Your task to perform on an android device: See recent photos Image 0: 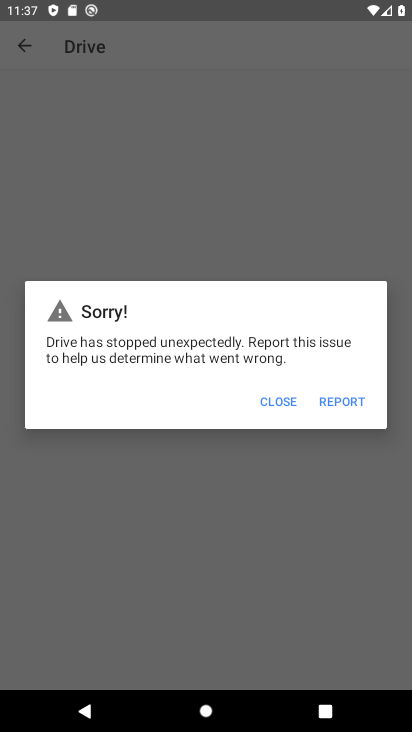
Step 0: press home button
Your task to perform on an android device: See recent photos Image 1: 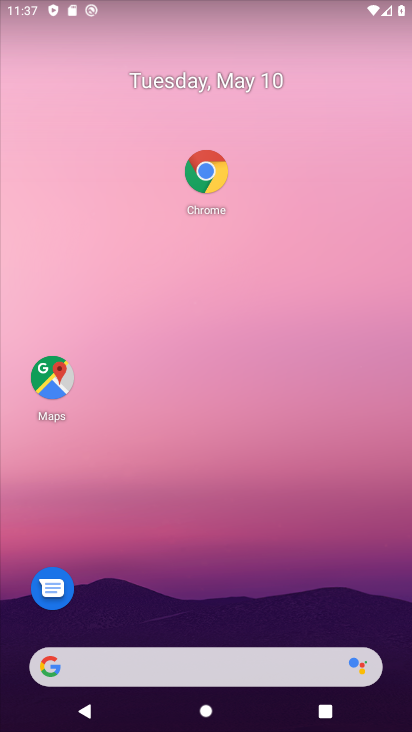
Step 1: drag from (193, 517) to (222, 293)
Your task to perform on an android device: See recent photos Image 2: 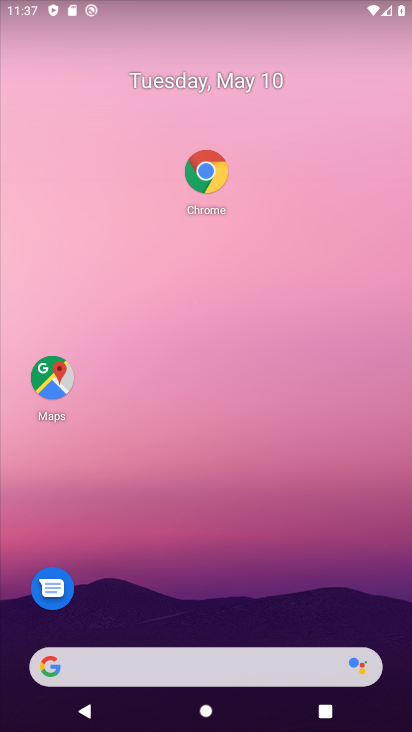
Step 2: drag from (207, 598) to (274, 253)
Your task to perform on an android device: See recent photos Image 3: 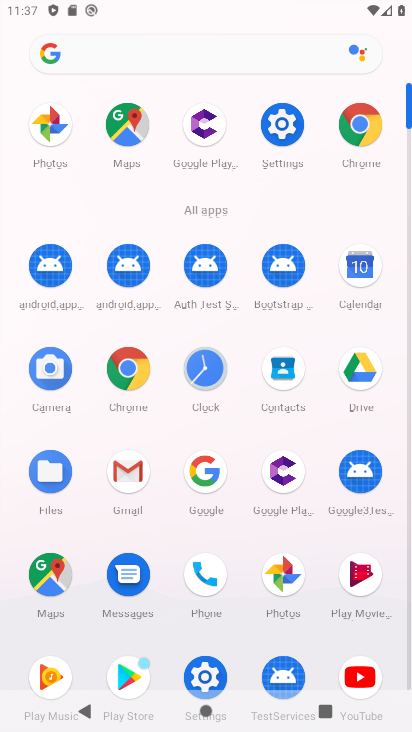
Step 3: click (271, 569)
Your task to perform on an android device: See recent photos Image 4: 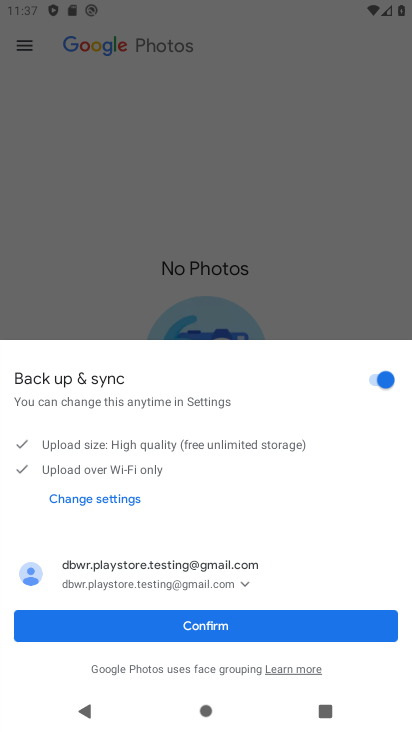
Step 4: click (235, 623)
Your task to perform on an android device: See recent photos Image 5: 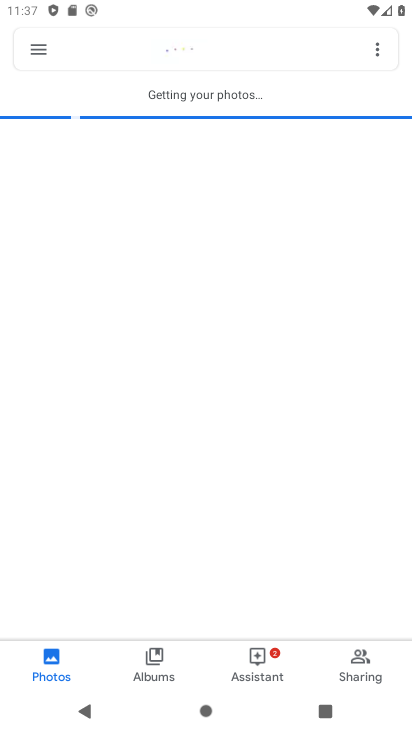
Step 5: click (156, 658)
Your task to perform on an android device: See recent photos Image 6: 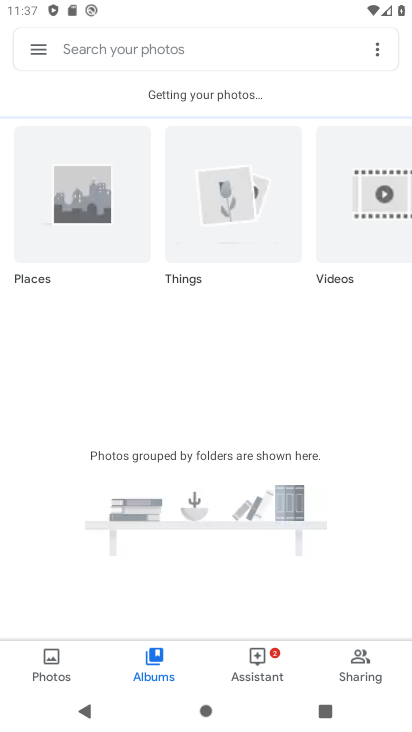
Step 6: click (58, 646)
Your task to perform on an android device: See recent photos Image 7: 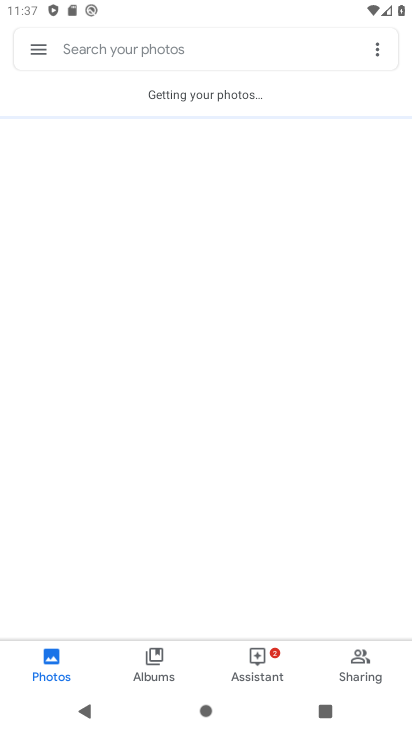
Step 7: click (148, 653)
Your task to perform on an android device: See recent photos Image 8: 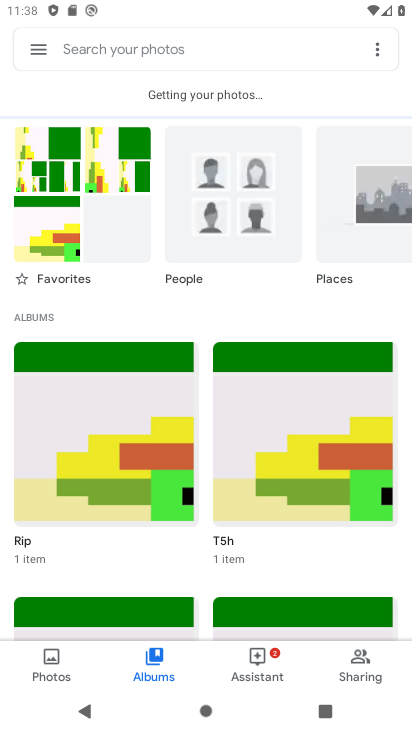
Step 8: click (66, 161)
Your task to perform on an android device: See recent photos Image 9: 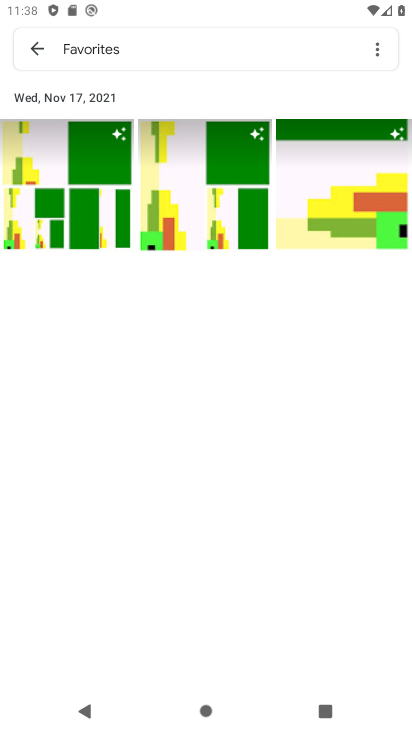
Step 9: task complete